Your task to perform on an android device: toggle notifications settings in the gmail app Image 0: 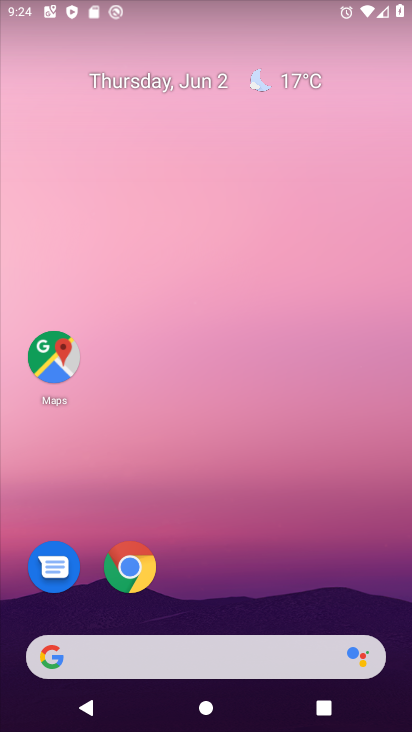
Step 0: drag from (205, 593) to (255, 111)
Your task to perform on an android device: toggle notifications settings in the gmail app Image 1: 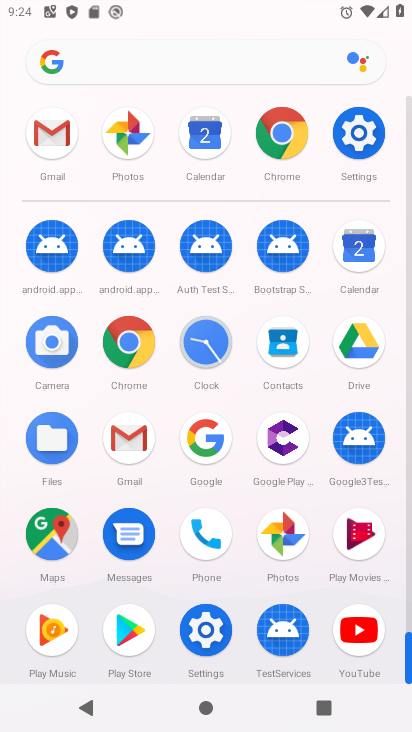
Step 1: click (132, 456)
Your task to perform on an android device: toggle notifications settings in the gmail app Image 2: 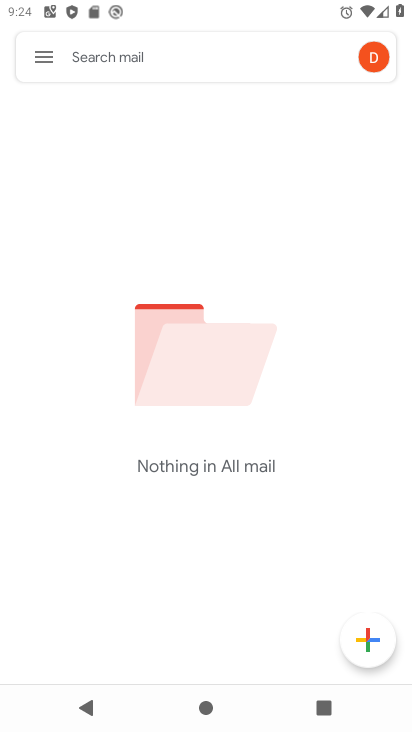
Step 2: click (44, 61)
Your task to perform on an android device: toggle notifications settings in the gmail app Image 3: 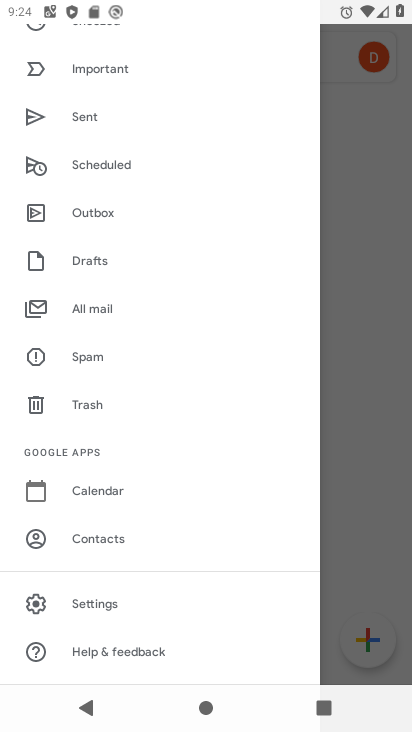
Step 3: click (99, 606)
Your task to perform on an android device: toggle notifications settings in the gmail app Image 4: 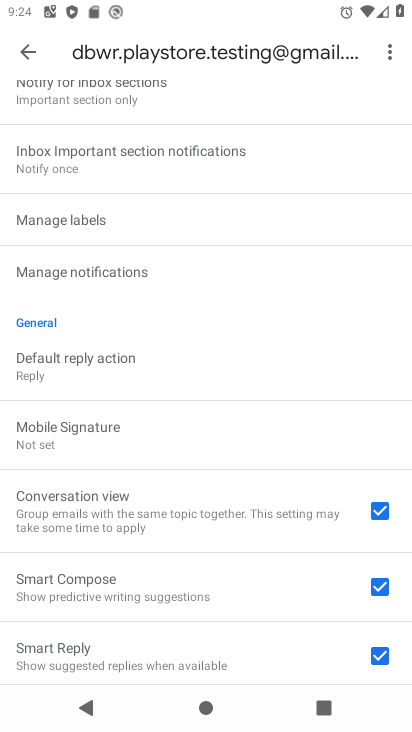
Step 4: click (31, 62)
Your task to perform on an android device: toggle notifications settings in the gmail app Image 5: 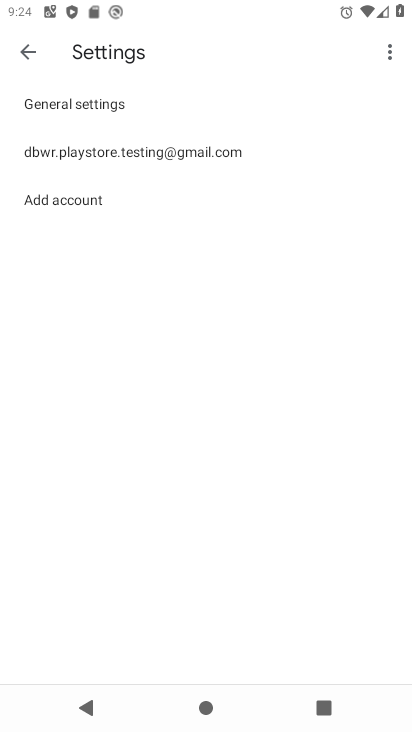
Step 5: click (106, 110)
Your task to perform on an android device: toggle notifications settings in the gmail app Image 6: 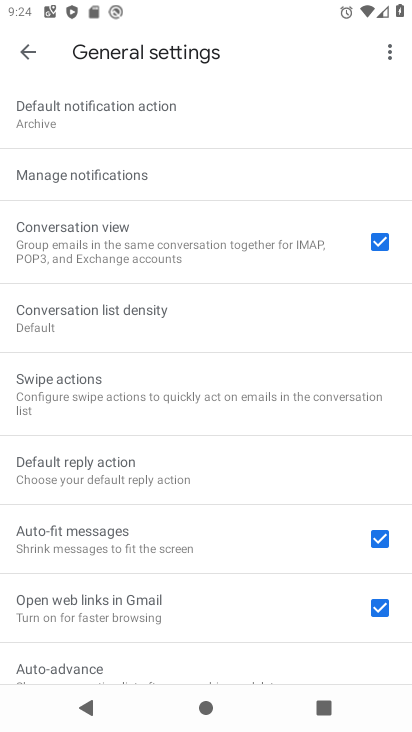
Step 6: click (107, 180)
Your task to perform on an android device: toggle notifications settings in the gmail app Image 7: 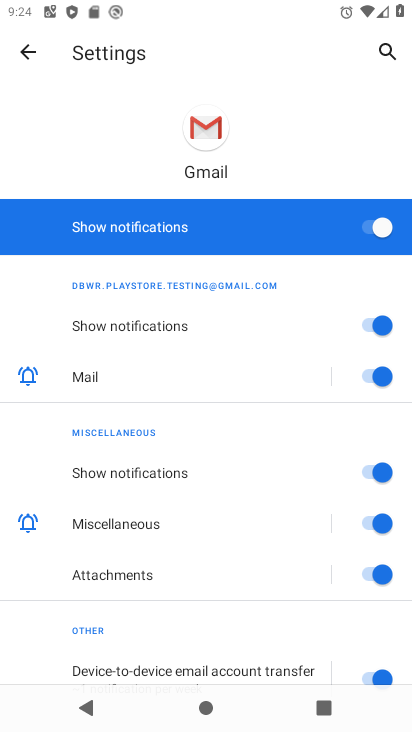
Step 7: click (352, 233)
Your task to perform on an android device: toggle notifications settings in the gmail app Image 8: 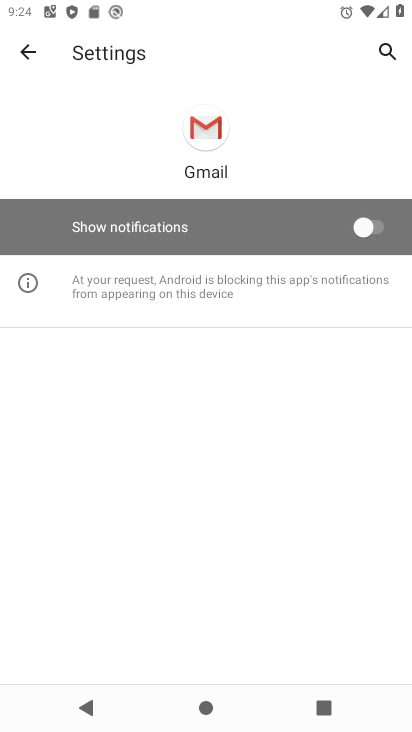
Step 8: task complete